Your task to perform on an android device: open sync settings in chrome Image 0: 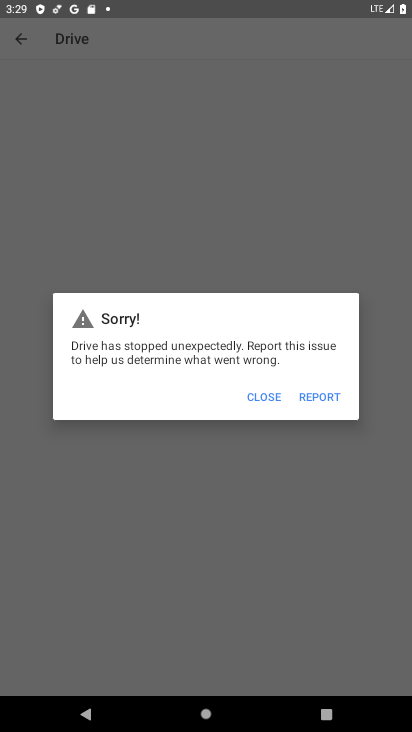
Step 0: press home button
Your task to perform on an android device: open sync settings in chrome Image 1: 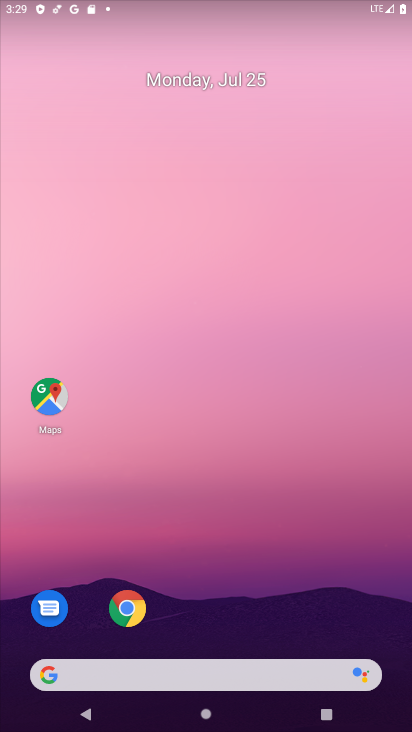
Step 1: drag from (14, 548) to (211, 174)
Your task to perform on an android device: open sync settings in chrome Image 2: 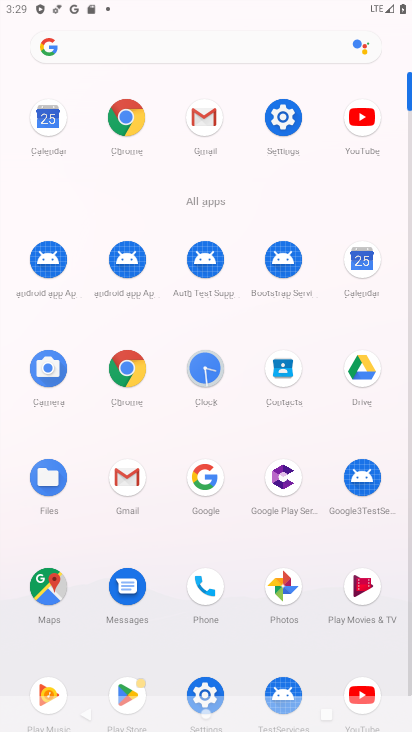
Step 2: click (133, 115)
Your task to perform on an android device: open sync settings in chrome Image 3: 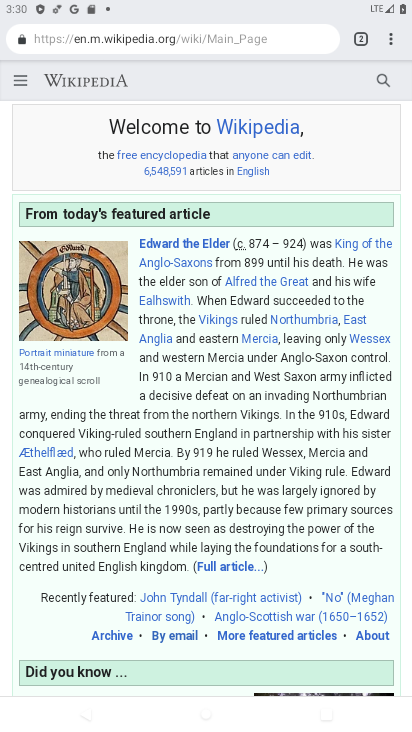
Step 3: task complete